Your task to perform on an android device: change your default location settings in chrome Image 0: 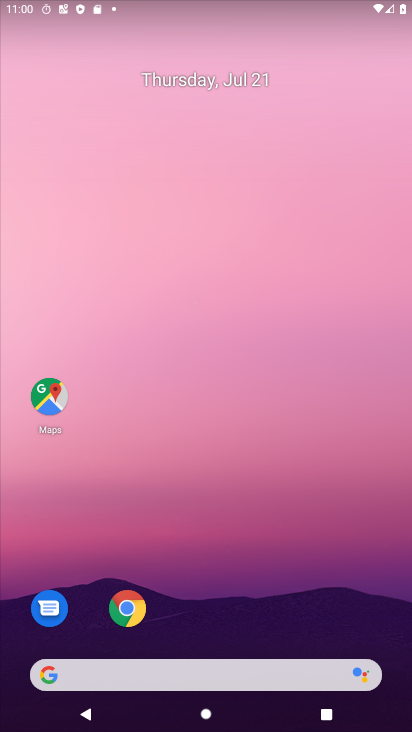
Step 0: drag from (187, 327) to (238, 155)
Your task to perform on an android device: change your default location settings in chrome Image 1: 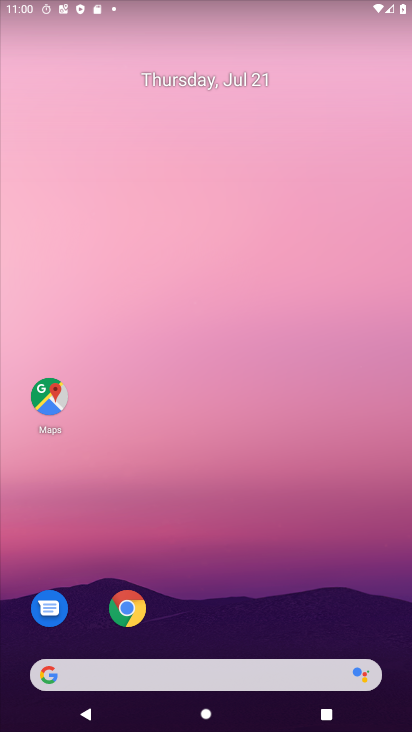
Step 1: drag from (225, 632) to (220, 242)
Your task to perform on an android device: change your default location settings in chrome Image 2: 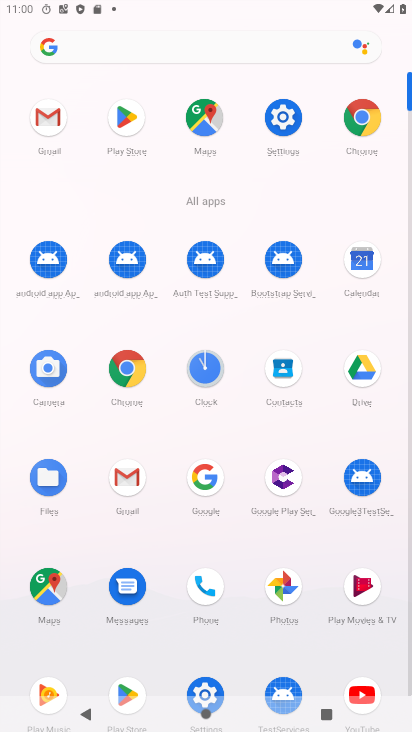
Step 2: click (351, 154)
Your task to perform on an android device: change your default location settings in chrome Image 3: 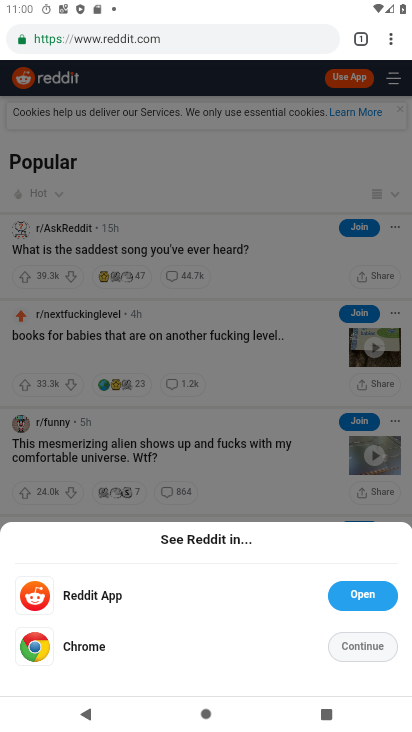
Step 3: click (361, 642)
Your task to perform on an android device: change your default location settings in chrome Image 4: 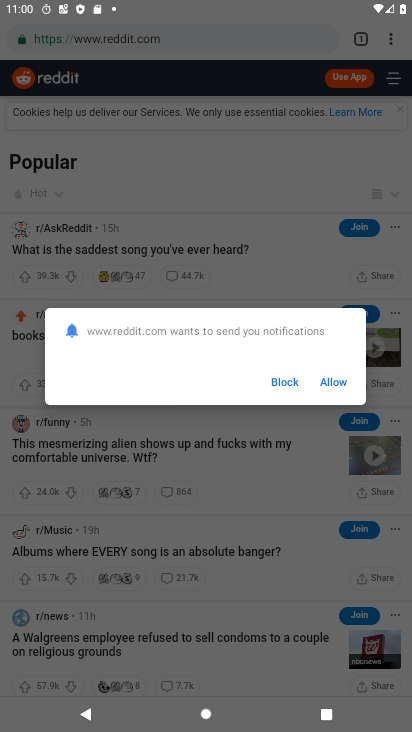
Step 4: click (284, 380)
Your task to perform on an android device: change your default location settings in chrome Image 5: 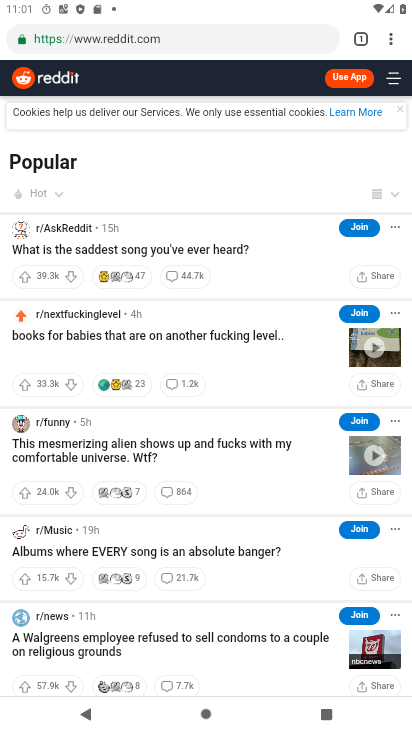
Step 5: click (389, 35)
Your task to perform on an android device: change your default location settings in chrome Image 6: 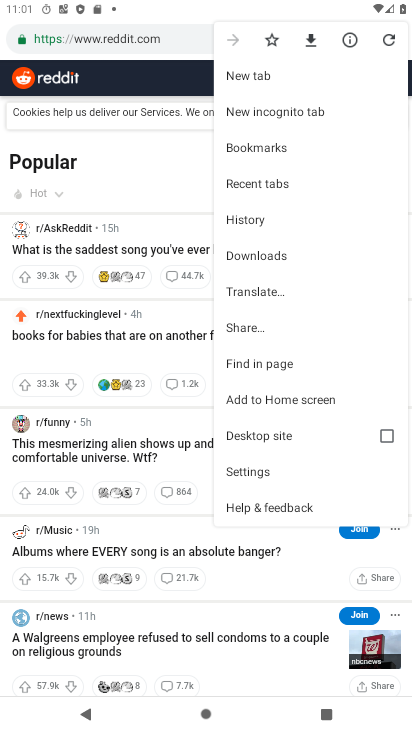
Step 6: click (238, 465)
Your task to perform on an android device: change your default location settings in chrome Image 7: 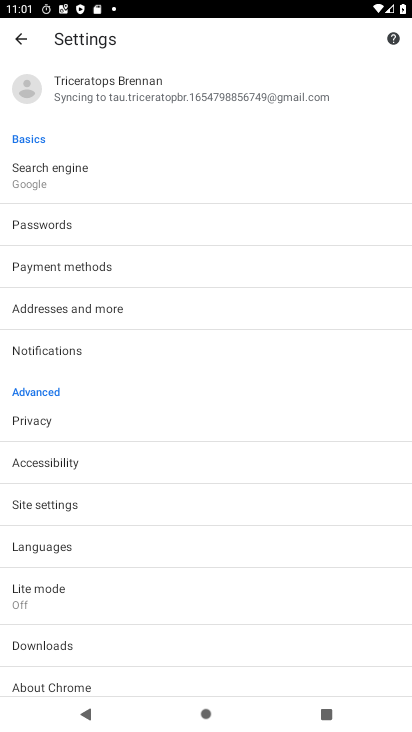
Step 7: click (50, 503)
Your task to perform on an android device: change your default location settings in chrome Image 8: 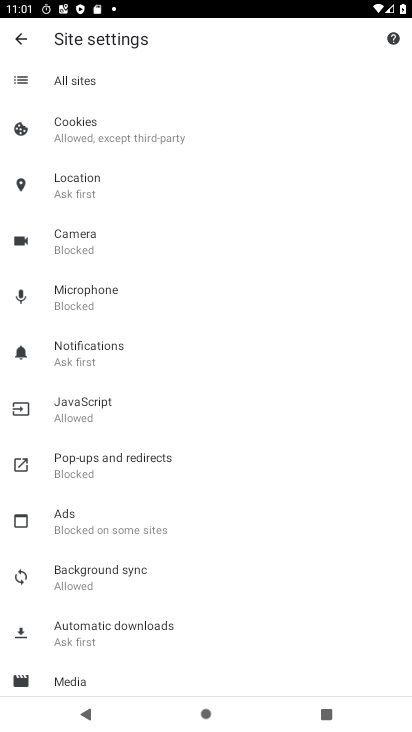
Step 8: click (94, 195)
Your task to perform on an android device: change your default location settings in chrome Image 9: 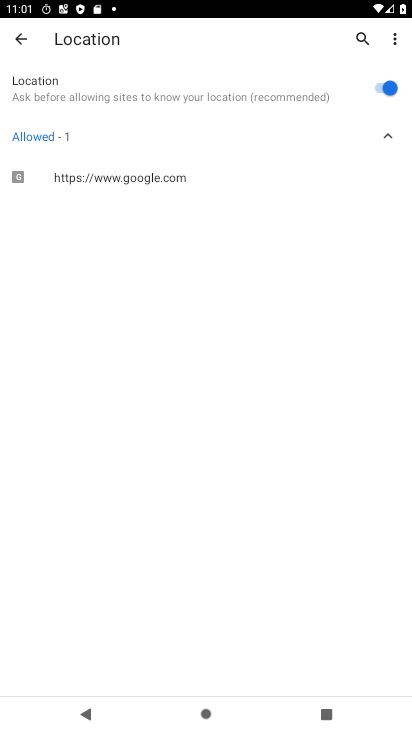
Step 9: click (380, 88)
Your task to perform on an android device: change your default location settings in chrome Image 10: 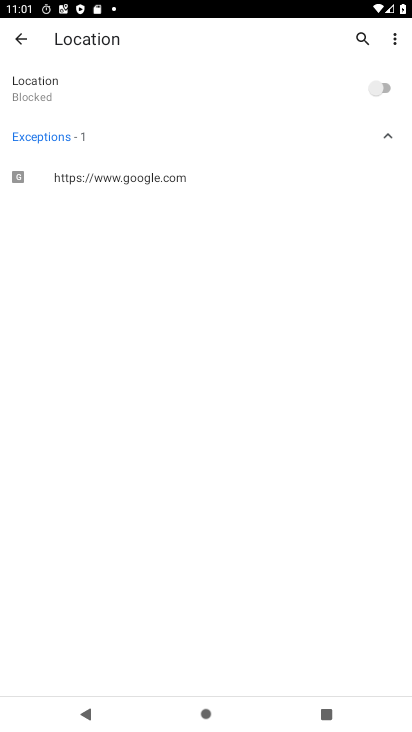
Step 10: task complete